Your task to perform on an android device: refresh tabs in the chrome app Image 0: 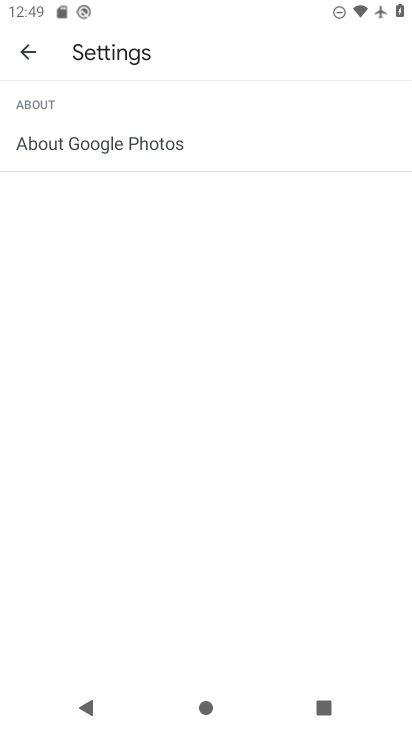
Step 0: press home button
Your task to perform on an android device: refresh tabs in the chrome app Image 1: 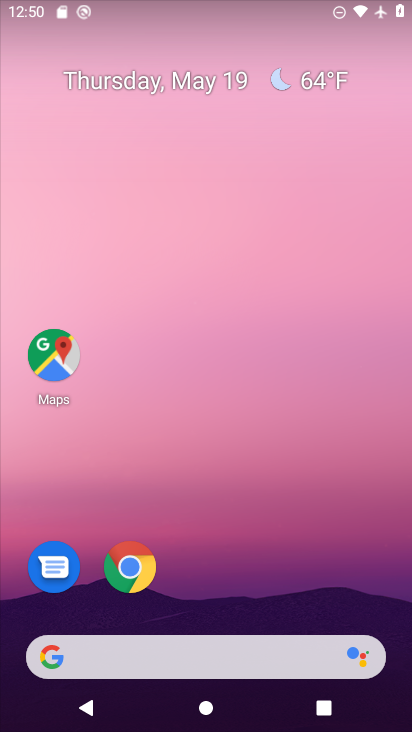
Step 1: click (134, 577)
Your task to perform on an android device: refresh tabs in the chrome app Image 2: 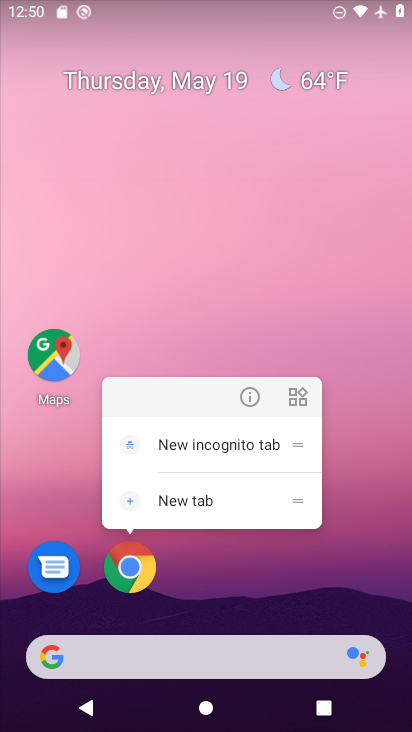
Step 2: click (135, 576)
Your task to perform on an android device: refresh tabs in the chrome app Image 3: 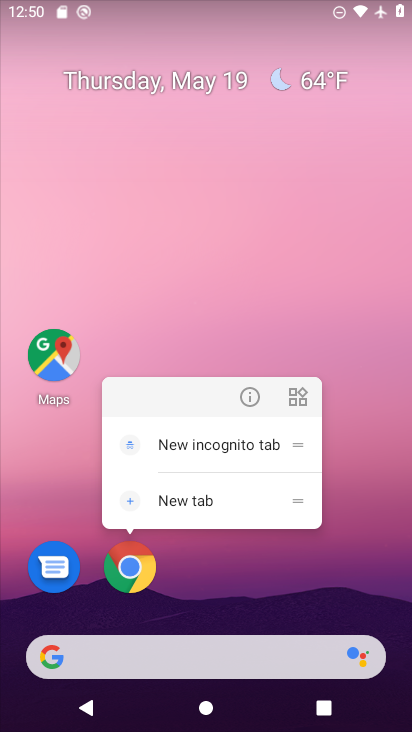
Step 3: click (122, 584)
Your task to perform on an android device: refresh tabs in the chrome app Image 4: 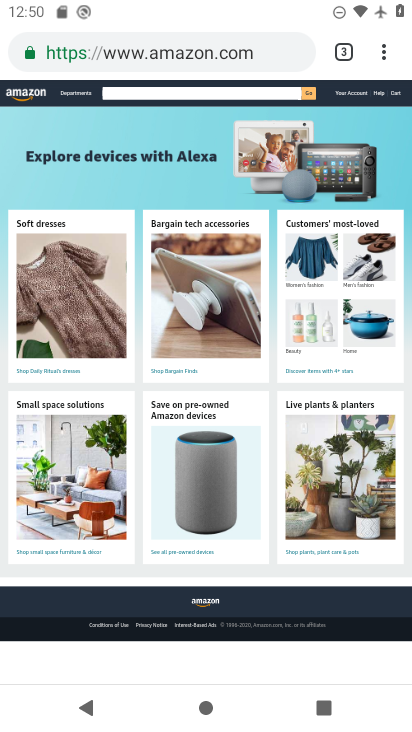
Step 4: task complete